Your task to perform on an android device: turn smart compose on in the gmail app Image 0: 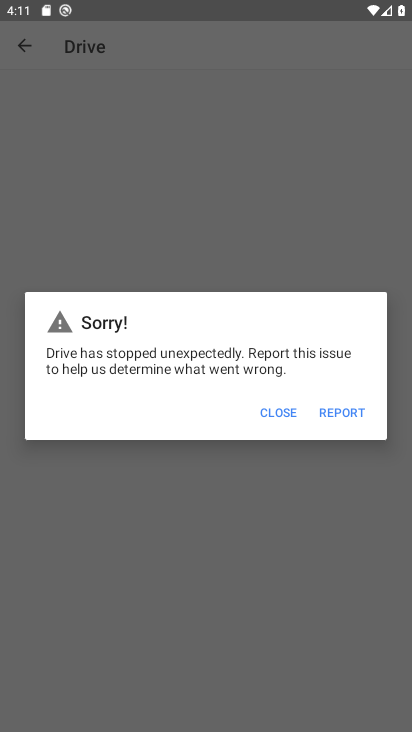
Step 0: press home button
Your task to perform on an android device: turn smart compose on in the gmail app Image 1: 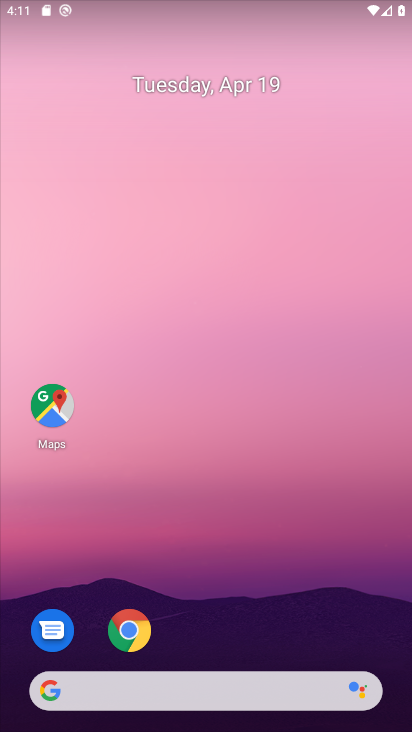
Step 1: drag from (212, 623) to (189, 165)
Your task to perform on an android device: turn smart compose on in the gmail app Image 2: 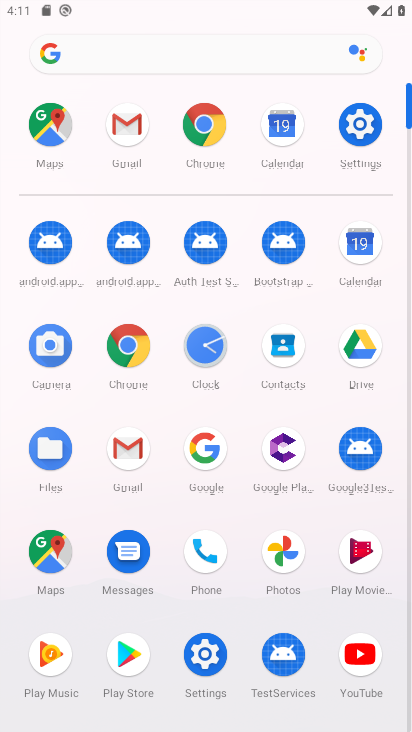
Step 2: click (131, 460)
Your task to perform on an android device: turn smart compose on in the gmail app Image 3: 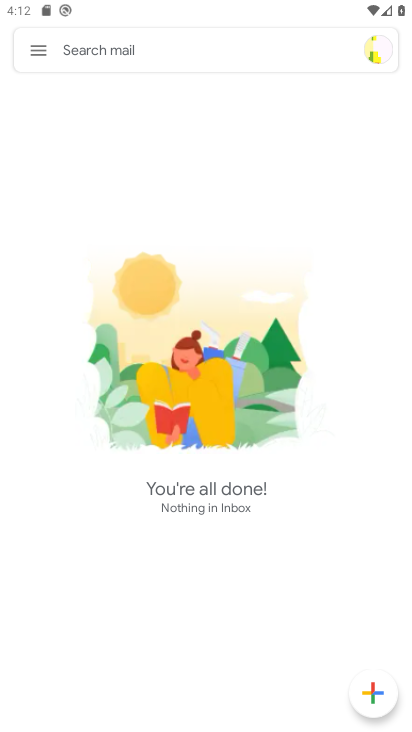
Step 3: click (46, 47)
Your task to perform on an android device: turn smart compose on in the gmail app Image 4: 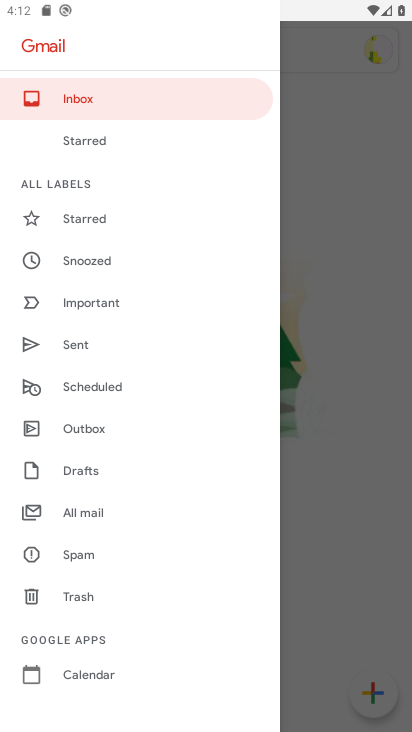
Step 4: drag from (114, 600) to (194, 327)
Your task to perform on an android device: turn smart compose on in the gmail app Image 5: 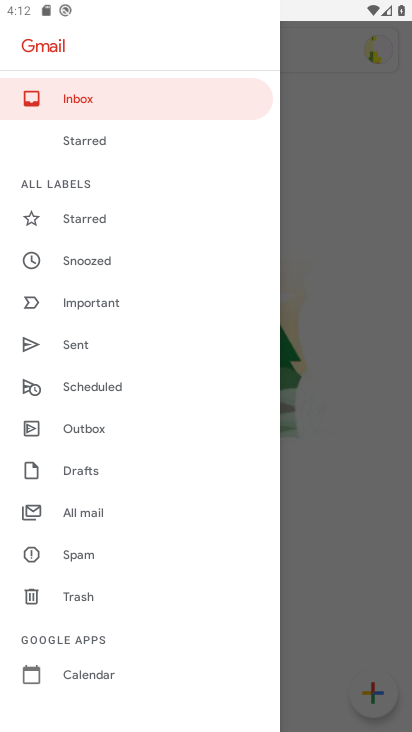
Step 5: drag from (121, 666) to (102, 394)
Your task to perform on an android device: turn smart compose on in the gmail app Image 6: 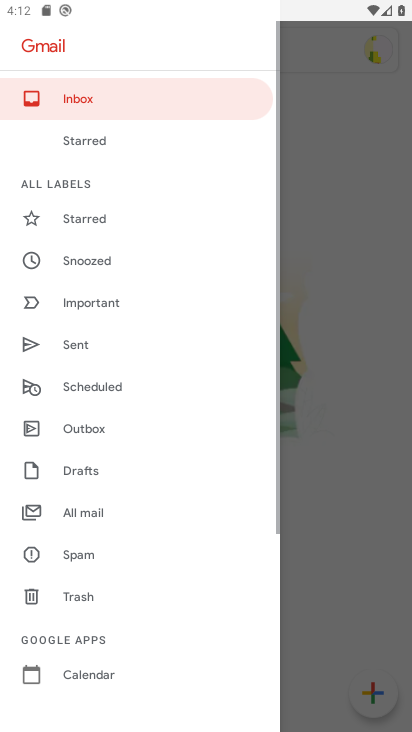
Step 6: drag from (195, 532) to (199, 334)
Your task to perform on an android device: turn smart compose on in the gmail app Image 7: 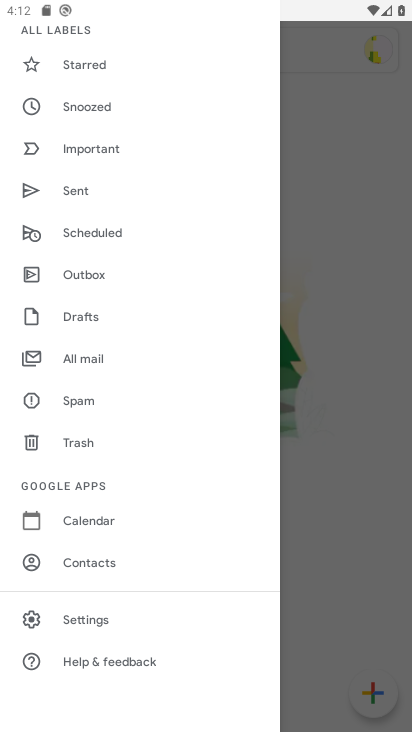
Step 7: click (87, 623)
Your task to perform on an android device: turn smart compose on in the gmail app Image 8: 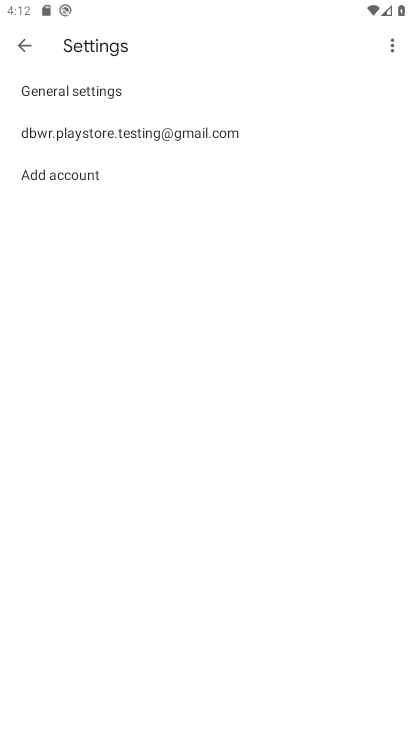
Step 8: click (110, 124)
Your task to perform on an android device: turn smart compose on in the gmail app Image 9: 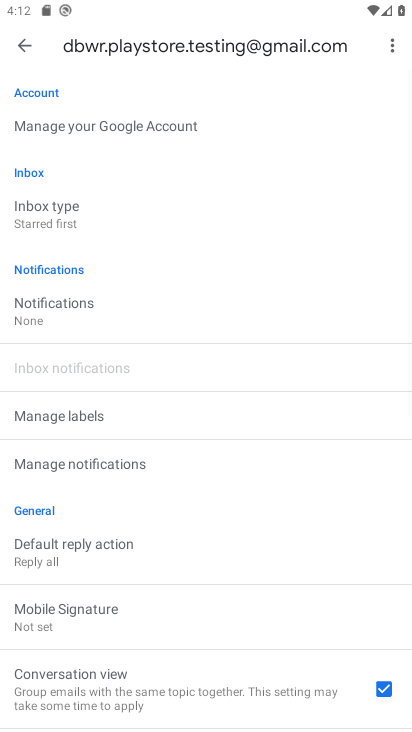
Step 9: task complete